Your task to perform on an android device: Is it going to rain tomorrow? Image 0: 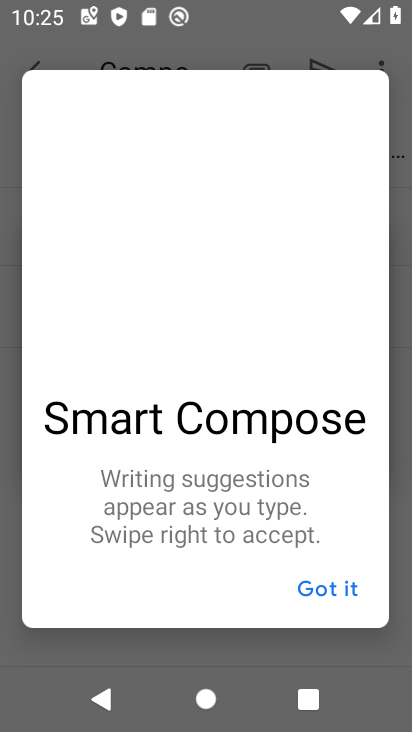
Step 0: click (238, 523)
Your task to perform on an android device: Is it going to rain tomorrow? Image 1: 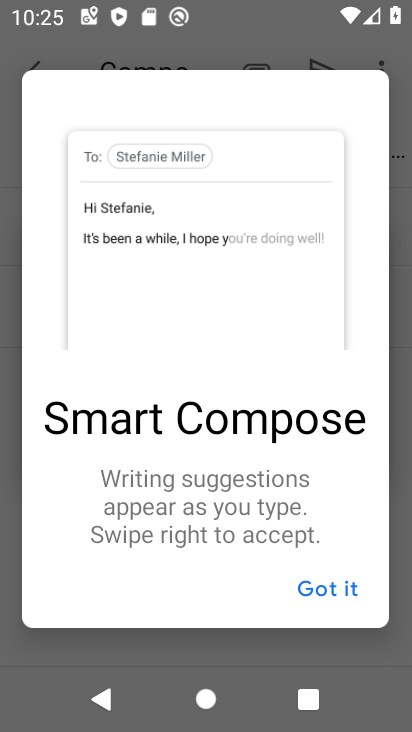
Step 1: press home button
Your task to perform on an android device: Is it going to rain tomorrow? Image 2: 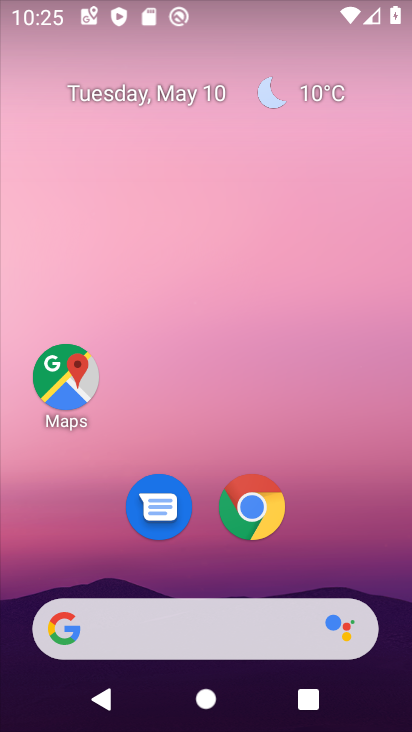
Step 2: click (244, 529)
Your task to perform on an android device: Is it going to rain tomorrow? Image 3: 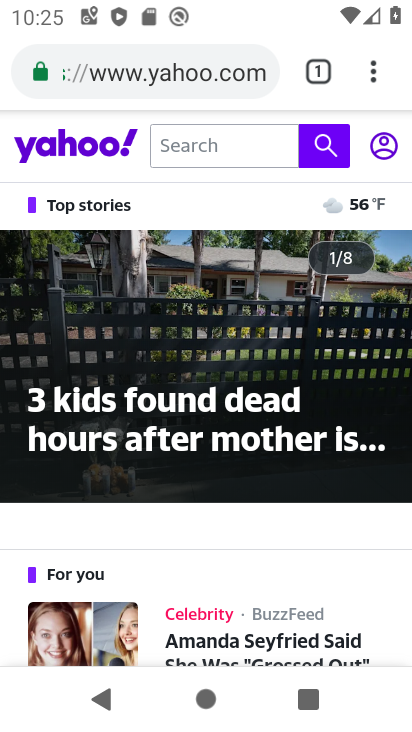
Step 3: click (190, 82)
Your task to perform on an android device: Is it going to rain tomorrow? Image 4: 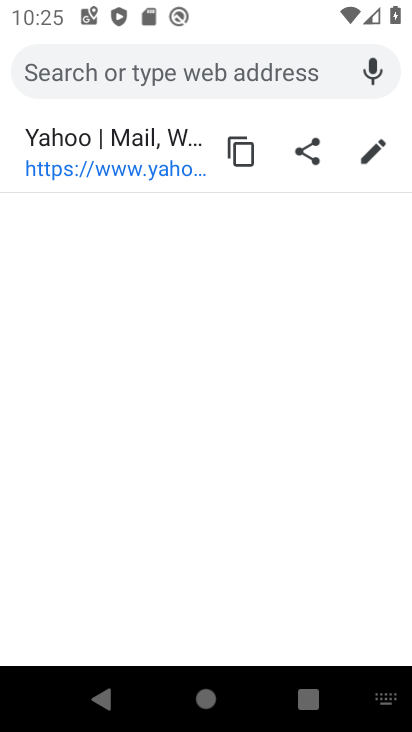
Step 4: type "is it going to rain tomorrow?"
Your task to perform on an android device: Is it going to rain tomorrow? Image 5: 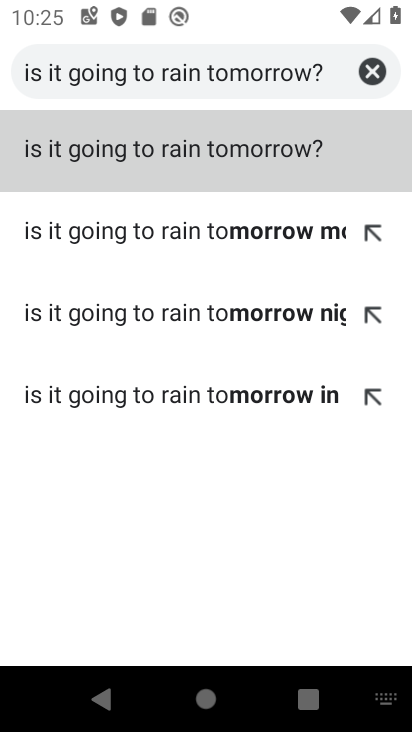
Step 5: click (104, 152)
Your task to perform on an android device: Is it going to rain tomorrow? Image 6: 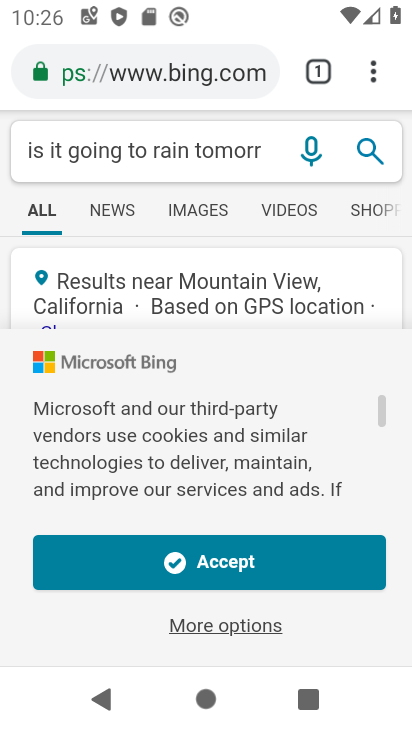
Step 6: task complete